Your task to perform on an android device: set an alarm Image 0: 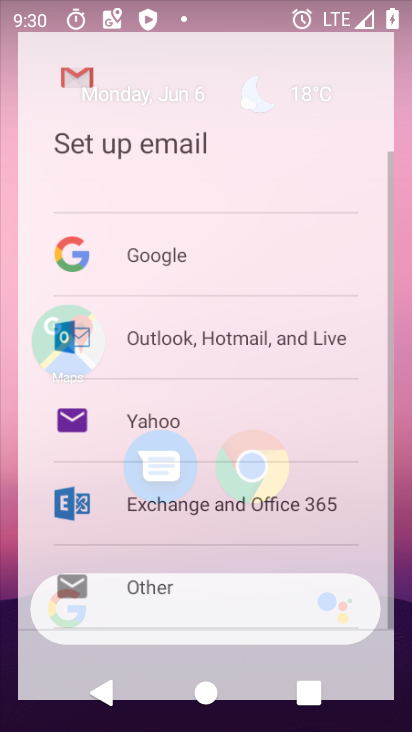
Step 0: drag from (217, 515) to (249, 125)
Your task to perform on an android device: set an alarm Image 1: 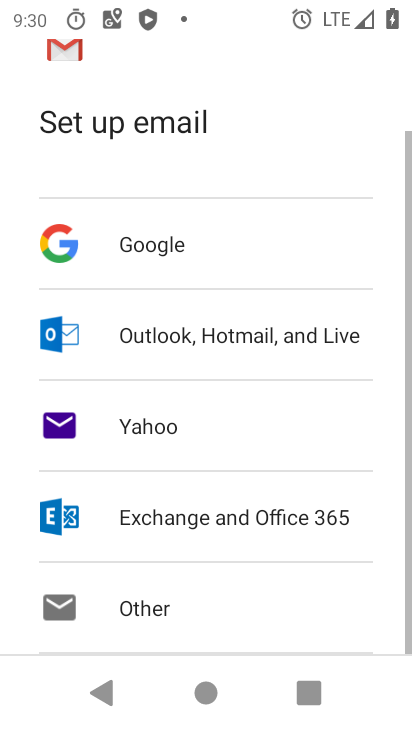
Step 1: press home button
Your task to perform on an android device: set an alarm Image 2: 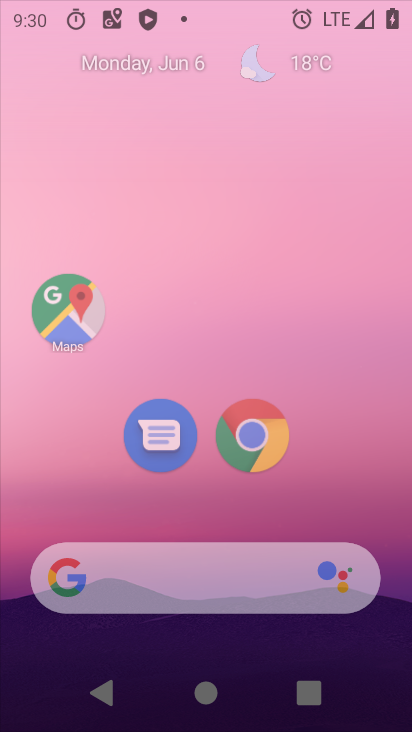
Step 2: drag from (223, 607) to (266, 92)
Your task to perform on an android device: set an alarm Image 3: 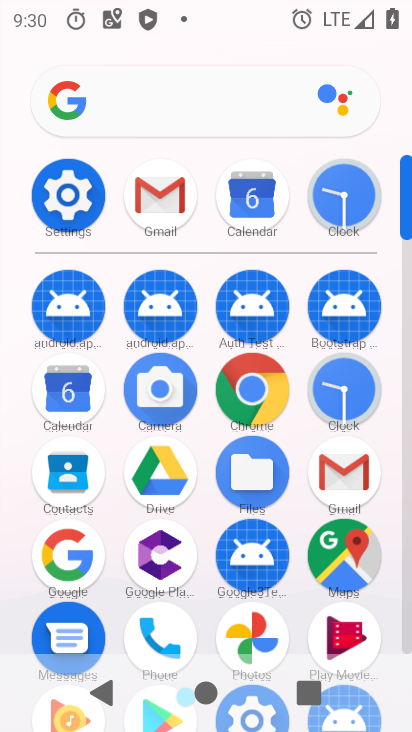
Step 3: click (340, 392)
Your task to perform on an android device: set an alarm Image 4: 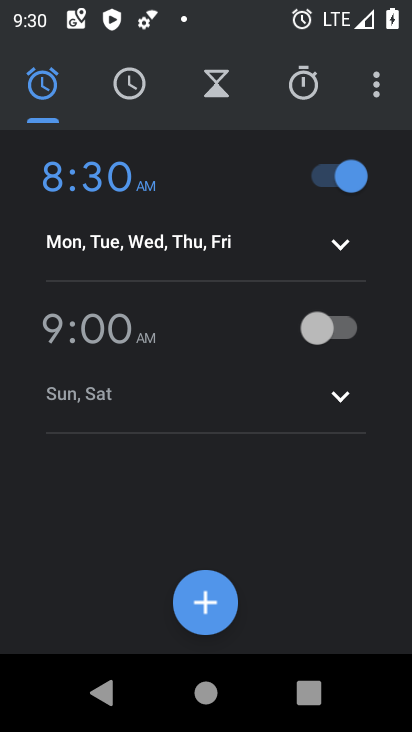
Step 4: click (385, 77)
Your task to perform on an android device: set an alarm Image 5: 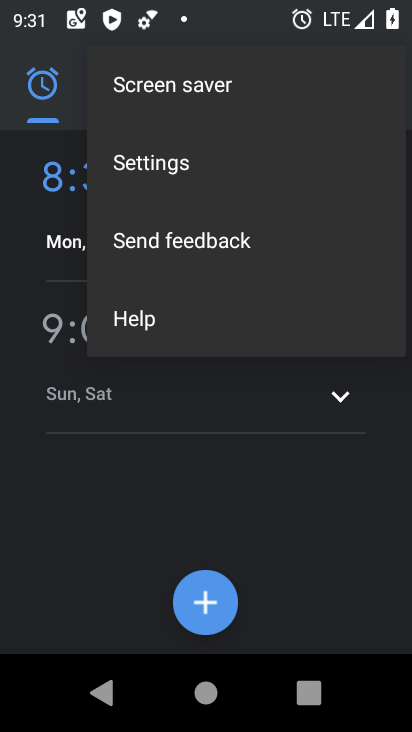
Step 5: click (40, 99)
Your task to perform on an android device: set an alarm Image 6: 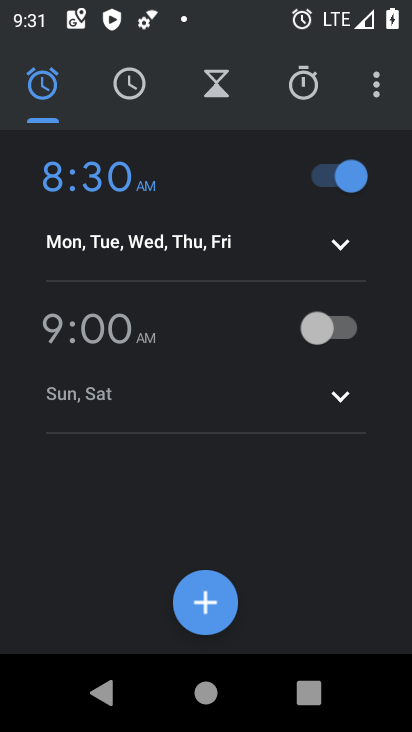
Step 6: click (334, 327)
Your task to perform on an android device: set an alarm Image 7: 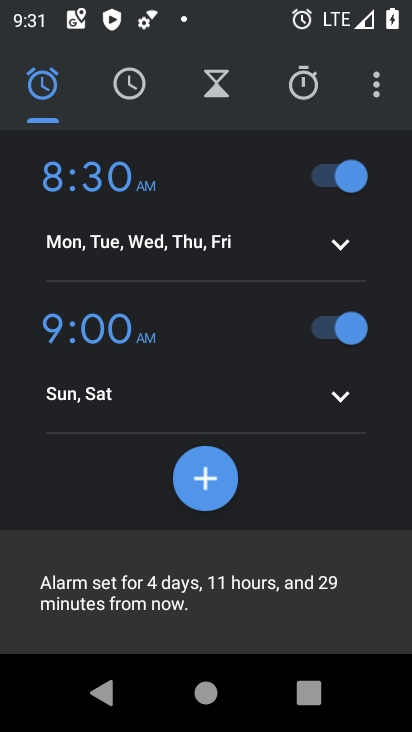
Step 7: task complete